Your task to perform on an android device: Search for sushi restaurants on Maps Image 0: 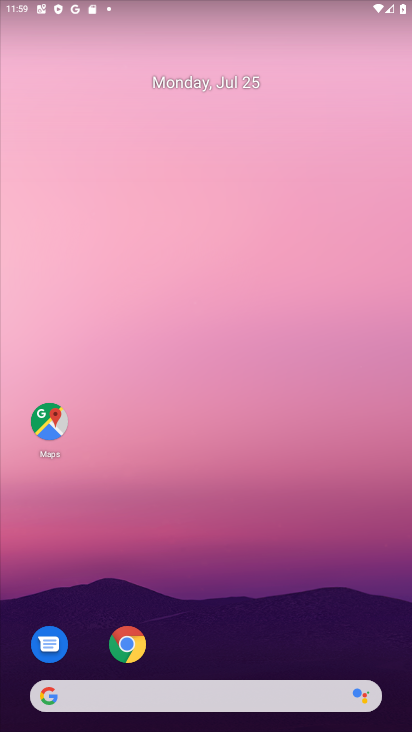
Step 0: click (53, 431)
Your task to perform on an android device: Search for sushi restaurants on Maps Image 1: 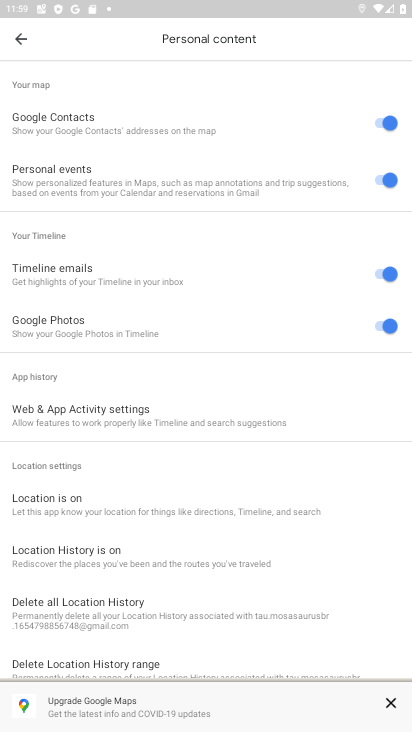
Step 1: click (18, 41)
Your task to perform on an android device: Search for sushi restaurants on Maps Image 2: 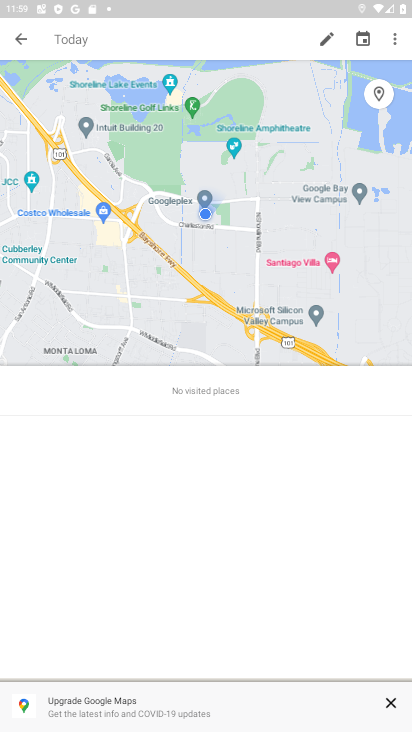
Step 2: click (18, 40)
Your task to perform on an android device: Search for sushi restaurants on Maps Image 3: 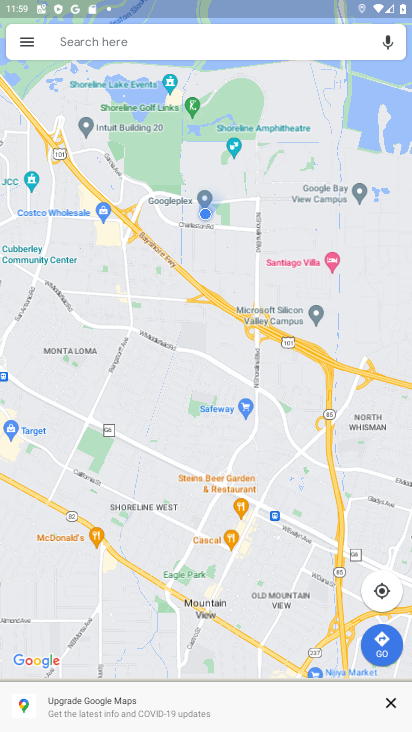
Step 3: click (69, 45)
Your task to perform on an android device: Search for sushi restaurants on Maps Image 4: 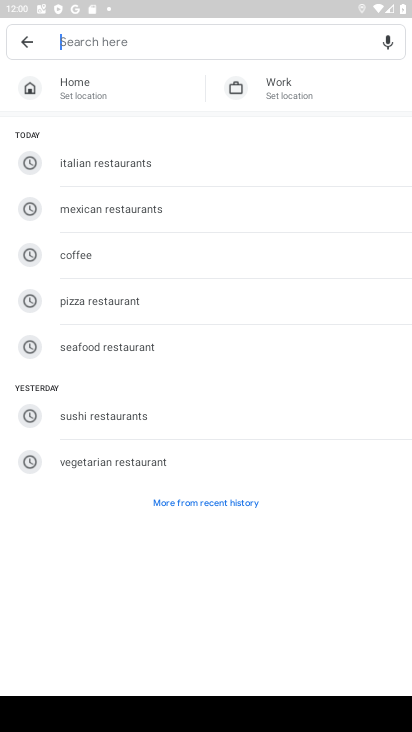
Step 4: type "sushi restaurants"
Your task to perform on an android device: Search for sushi restaurants on Maps Image 5: 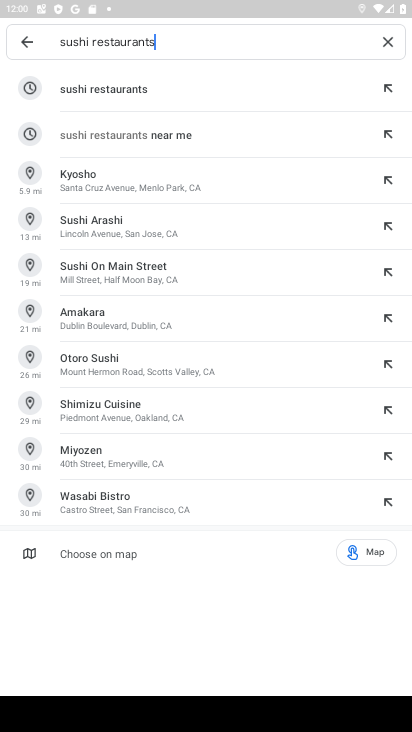
Step 5: click (101, 90)
Your task to perform on an android device: Search for sushi restaurants on Maps Image 6: 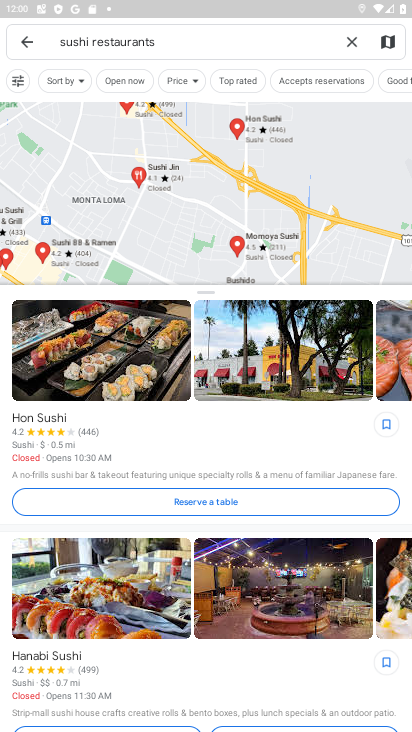
Step 6: task complete